Your task to perform on an android device: Go to Wikipedia Image 0: 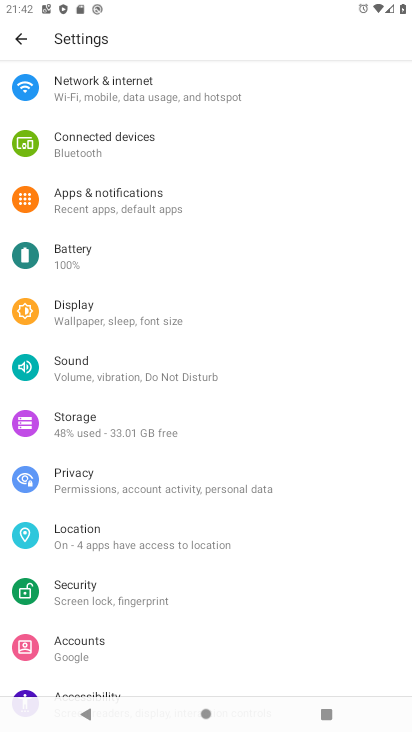
Step 0: press home button
Your task to perform on an android device: Go to Wikipedia Image 1: 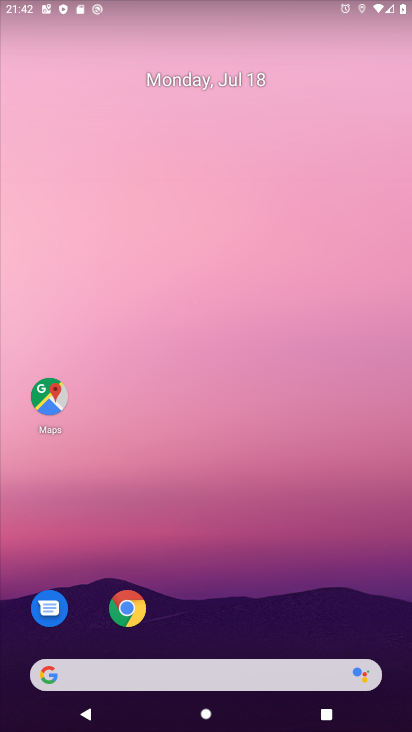
Step 1: click (126, 673)
Your task to perform on an android device: Go to Wikipedia Image 2: 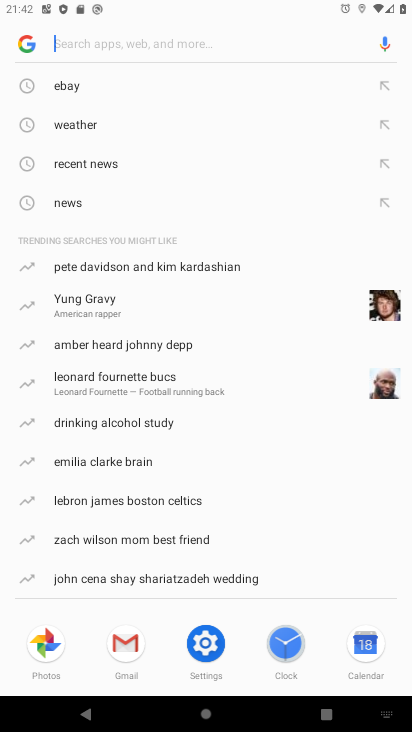
Step 2: type "Wikipedia"
Your task to perform on an android device: Go to Wikipedia Image 3: 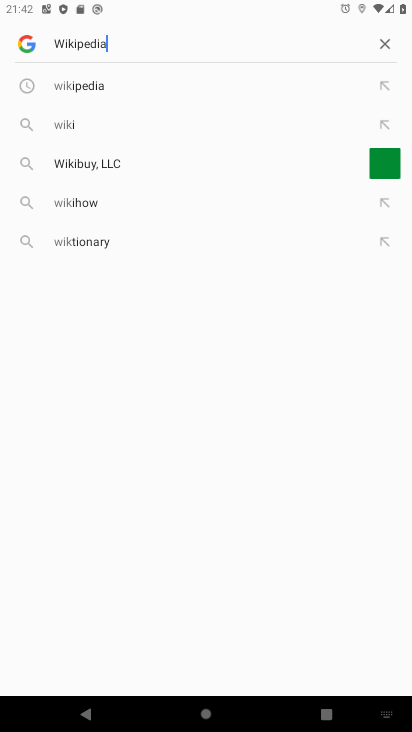
Step 3: type ""
Your task to perform on an android device: Go to Wikipedia Image 4: 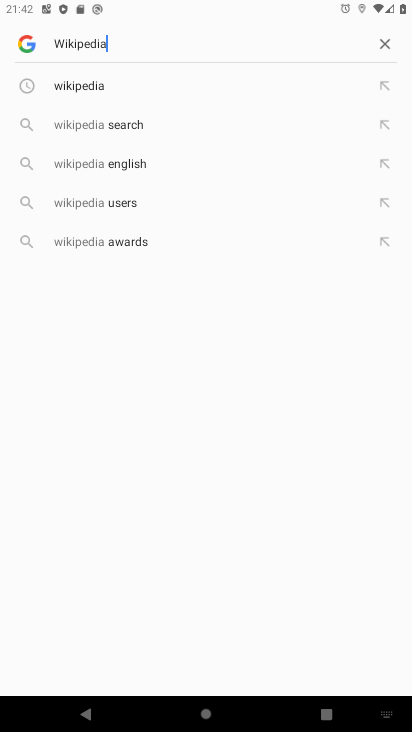
Step 4: click (81, 78)
Your task to perform on an android device: Go to Wikipedia Image 5: 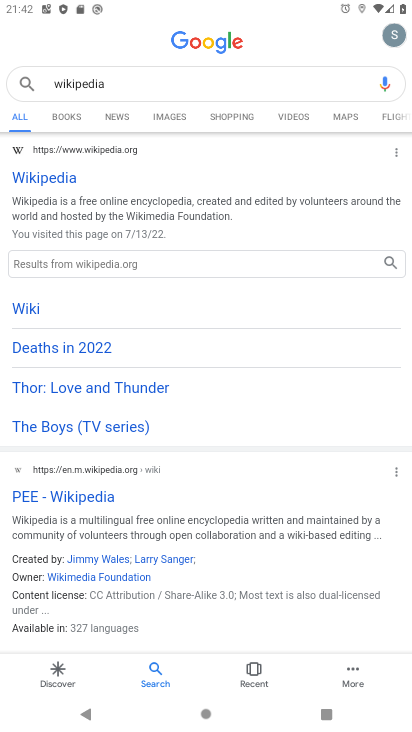
Step 5: task complete